Your task to perform on an android device: Open privacy settings Image 0: 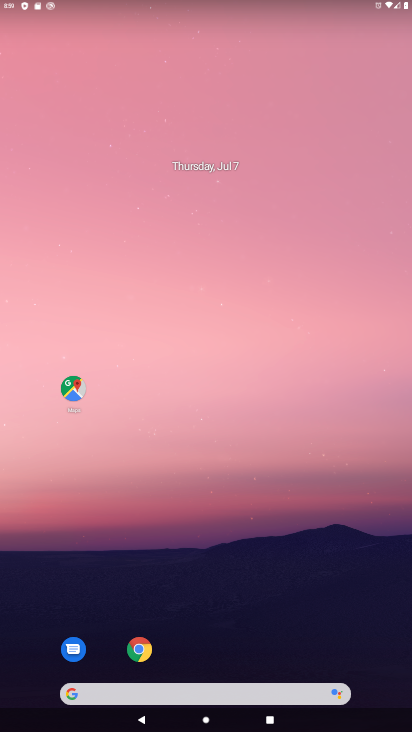
Step 0: drag from (261, 693) to (265, 17)
Your task to perform on an android device: Open privacy settings Image 1: 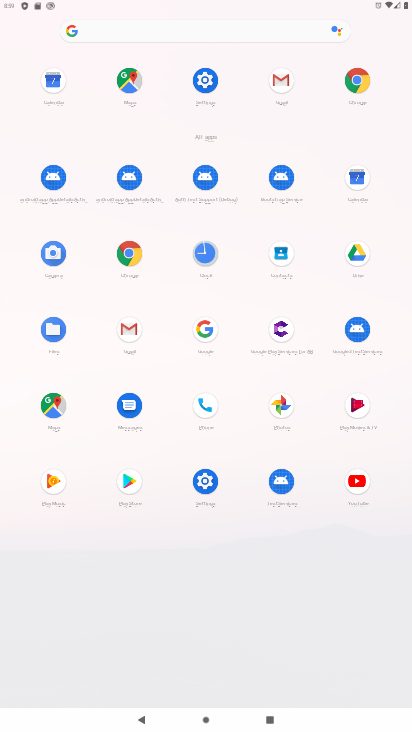
Step 1: click (204, 86)
Your task to perform on an android device: Open privacy settings Image 2: 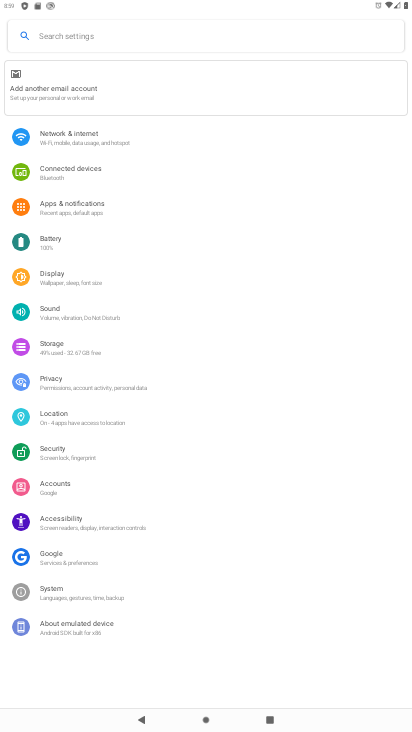
Step 2: click (53, 381)
Your task to perform on an android device: Open privacy settings Image 3: 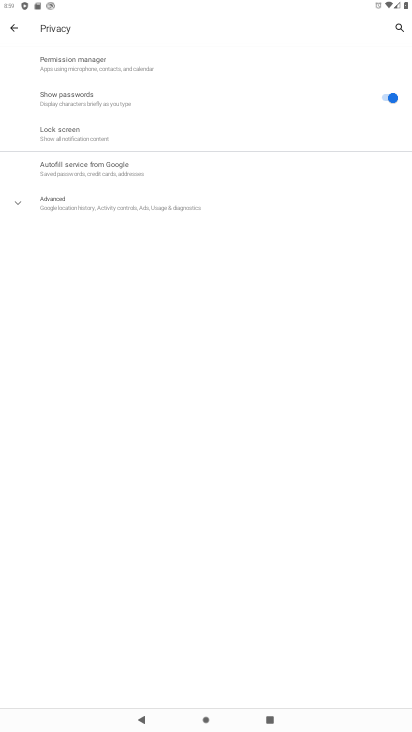
Step 3: task complete